Your task to perform on an android device: Clear all items from cart on target.com. Add asus zenbook to the cart on target.com, then select checkout. Image 0: 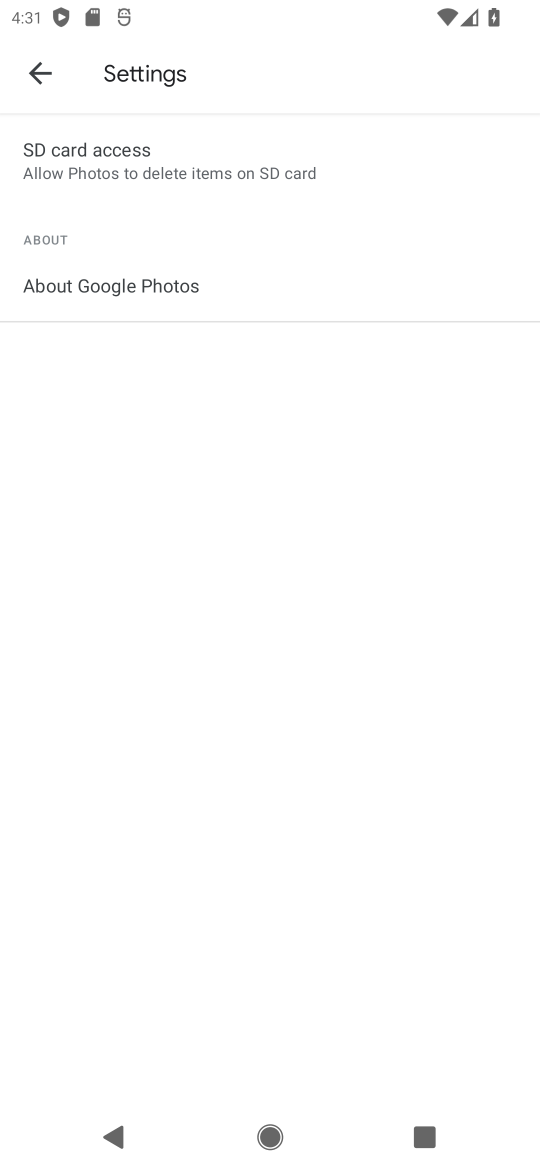
Step 0: press home button
Your task to perform on an android device: Clear all items from cart on target.com. Add asus zenbook to the cart on target.com, then select checkout. Image 1: 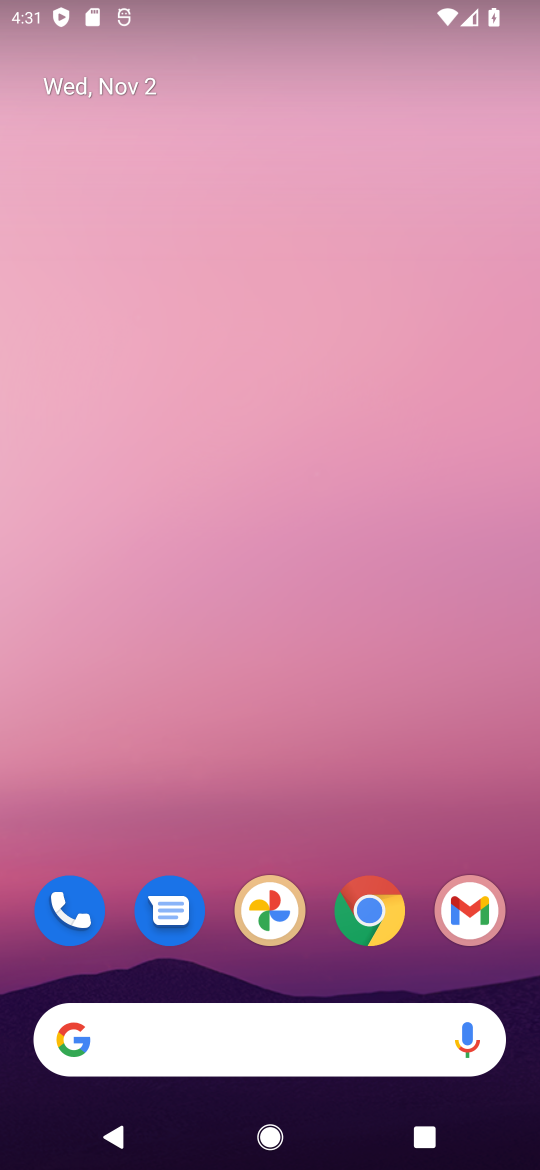
Step 1: click (372, 907)
Your task to perform on an android device: Clear all items from cart on target.com. Add asus zenbook to the cart on target.com, then select checkout. Image 2: 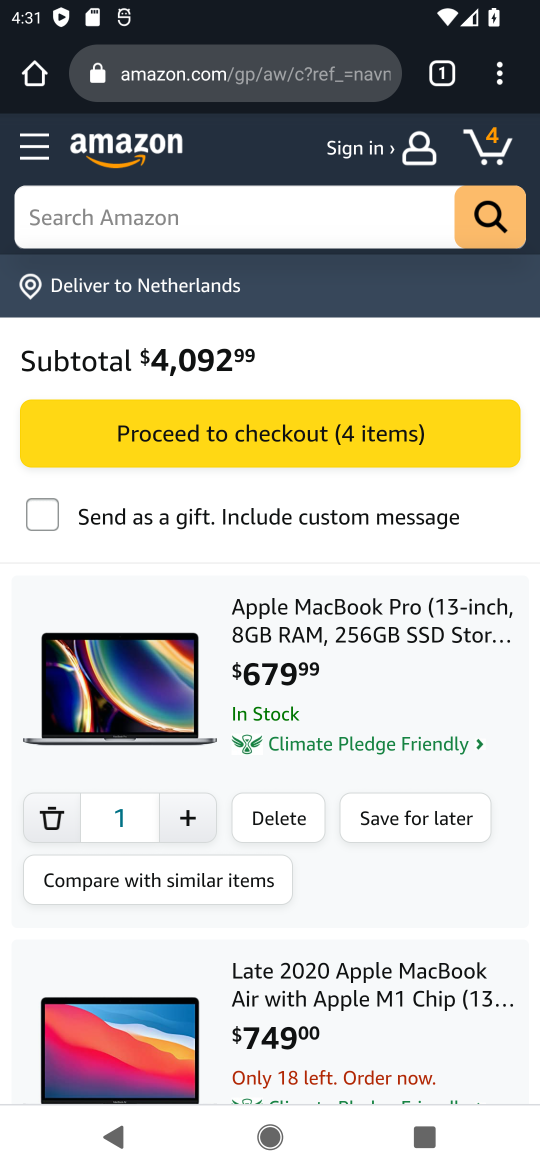
Step 2: click (221, 91)
Your task to perform on an android device: Clear all items from cart on target.com. Add asus zenbook to the cart on target.com, then select checkout. Image 3: 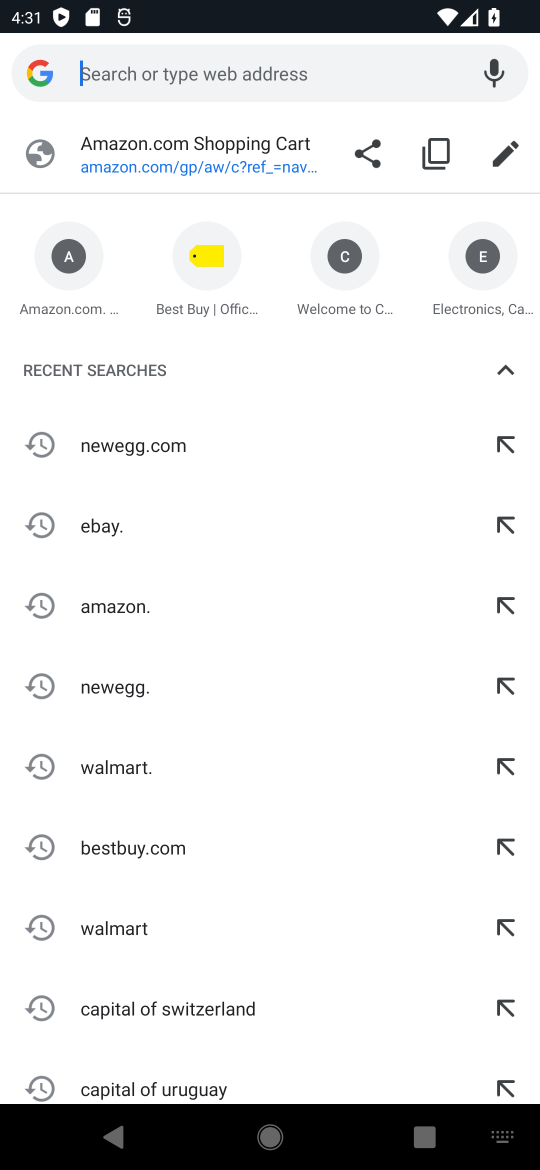
Step 3: type "target.com"
Your task to perform on an android device: Clear all items from cart on target.com. Add asus zenbook to the cart on target.com, then select checkout. Image 4: 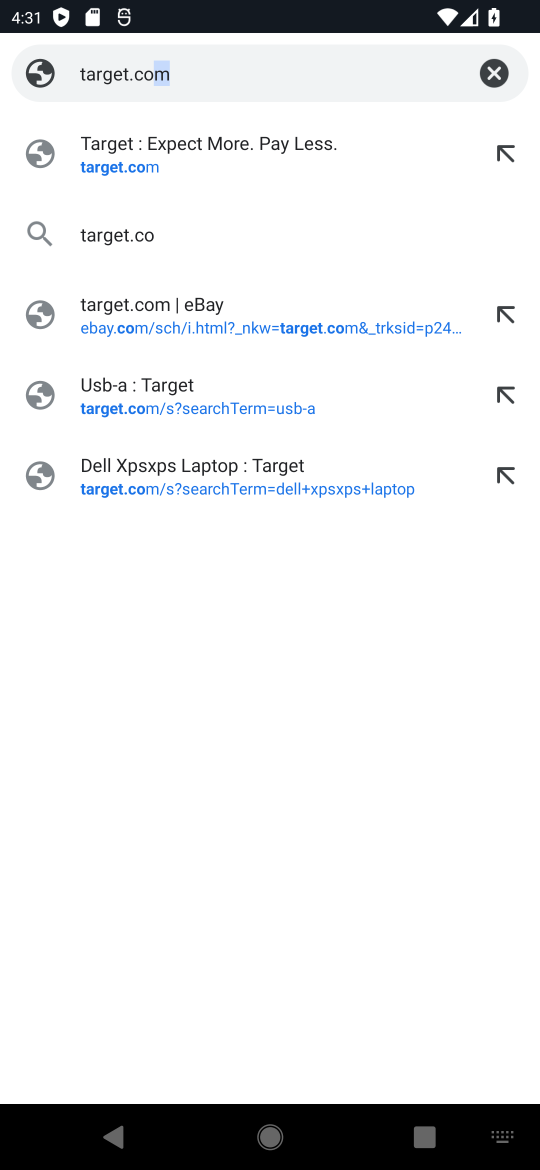
Step 4: type ""
Your task to perform on an android device: Clear all items from cart on target.com. Add asus zenbook to the cart on target.com, then select checkout. Image 5: 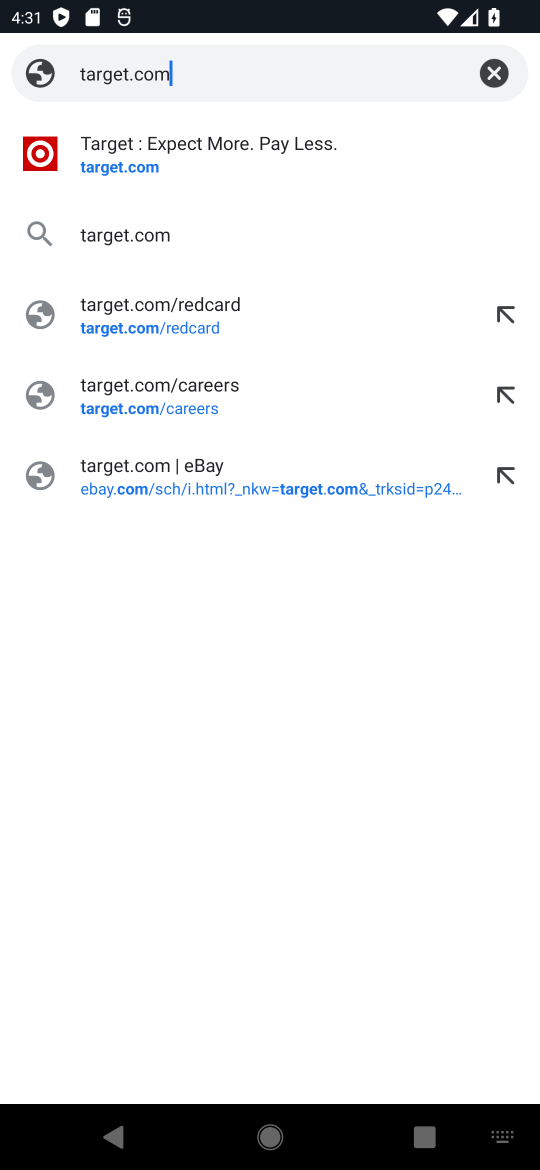
Step 5: click (318, 144)
Your task to perform on an android device: Clear all items from cart on target.com. Add asus zenbook to the cart on target.com, then select checkout. Image 6: 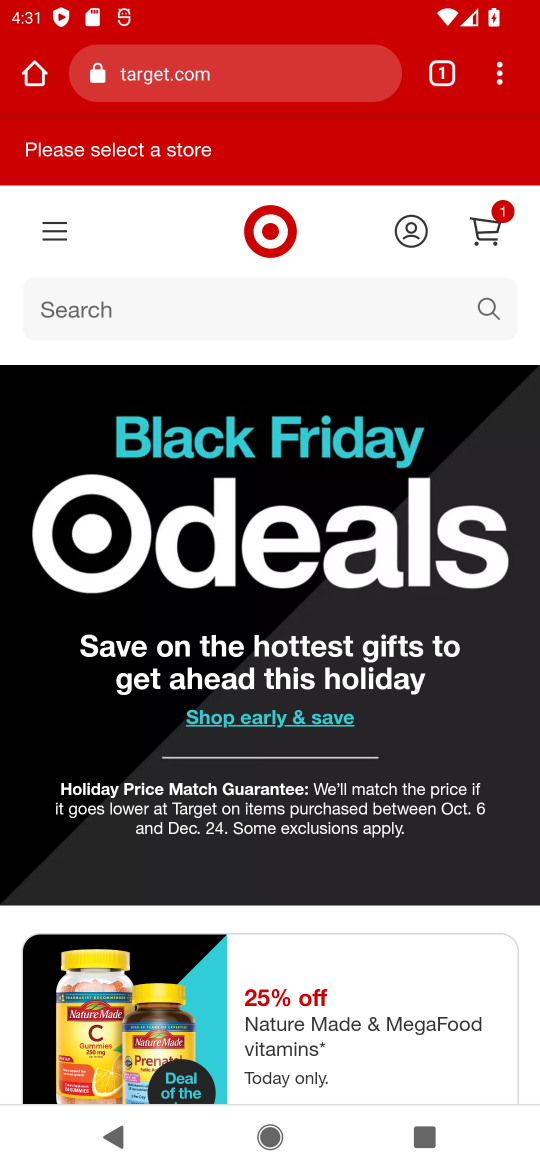
Step 6: click (488, 236)
Your task to perform on an android device: Clear all items from cart on target.com. Add asus zenbook to the cart on target.com, then select checkout. Image 7: 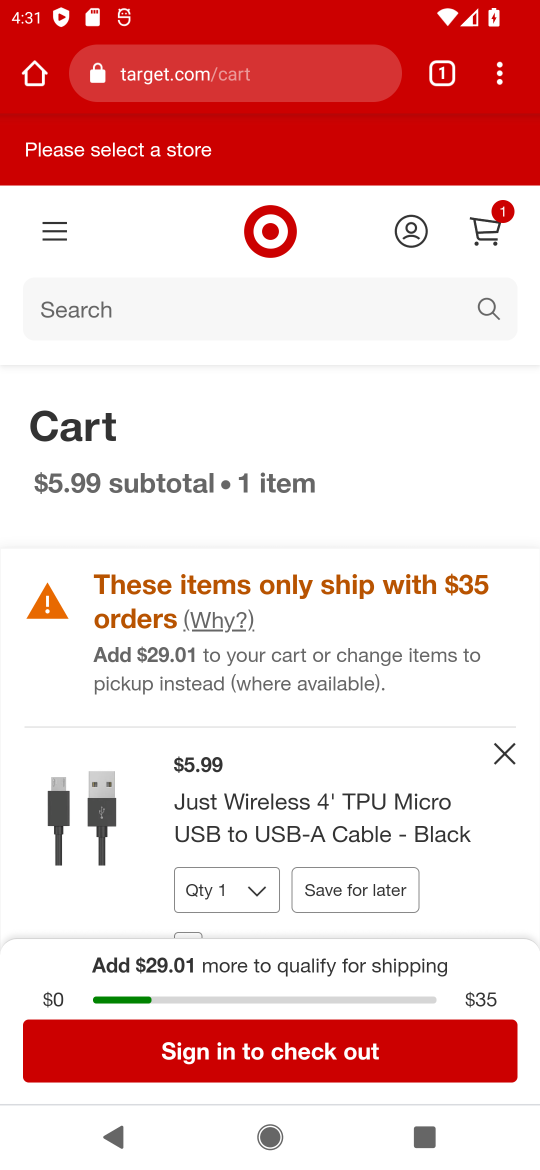
Step 7: click (273, 890)
Your task to perform on an android device: Clear all items from cart on target.com. Add asus zenbook to the cart on target.com, then select checkout. Image 8: 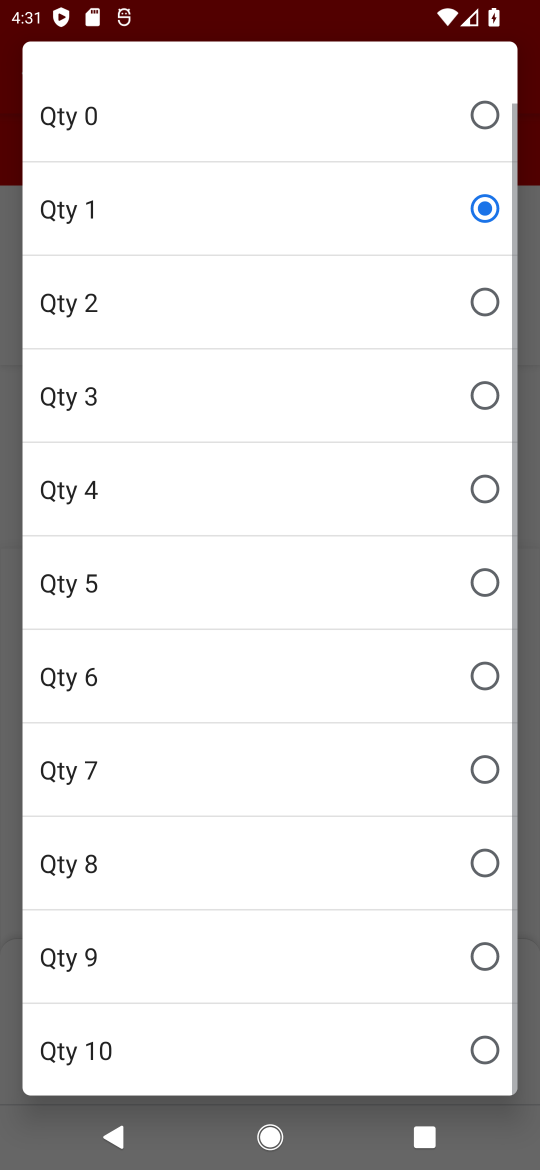
Step 8: click (294, 125)
Your task to perform on an android device: Clear all items from cart on target.com. Add asus zenbook to the cart on target.com, then select checkout. Image 9: 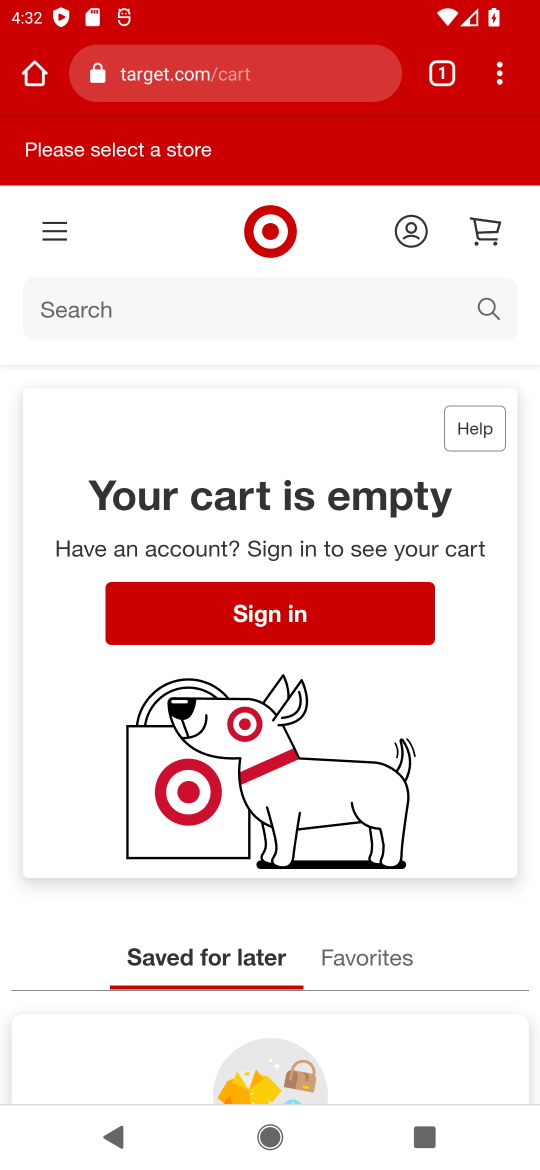
Step 9: click (342, 286)
Your task to perform on an android device: Clear all items from cart on target.com. Add asus zenbook to the cart on target.com, then select checkout. Image 10: 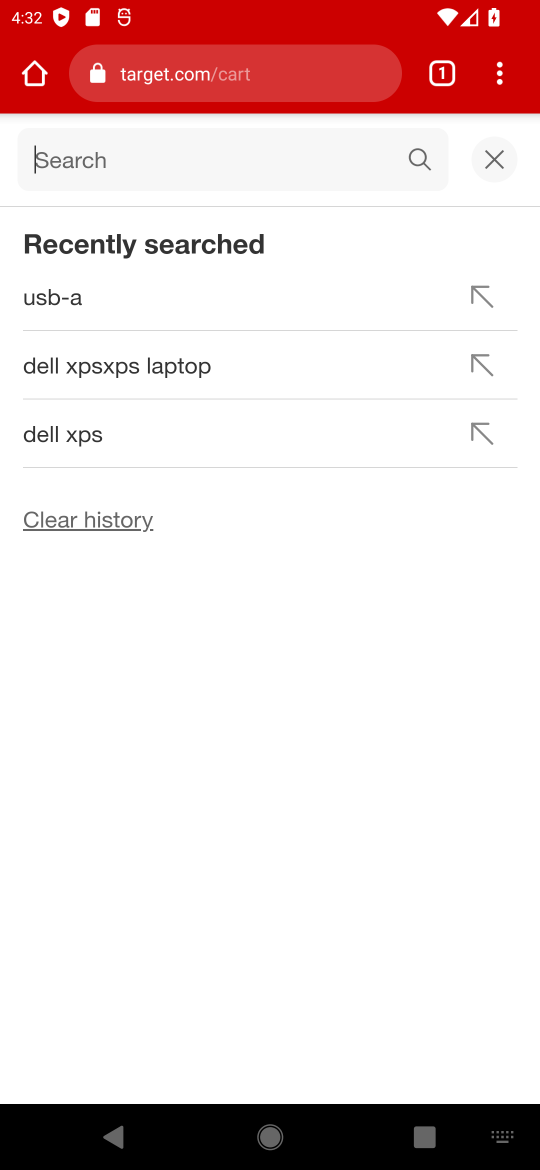
Step 10: type "asus zenbook"
Your task to perform on an android device: Clear all items from cart on target.com. Add asus zenbook to the cart on target.com, then select checkout. Image 11: 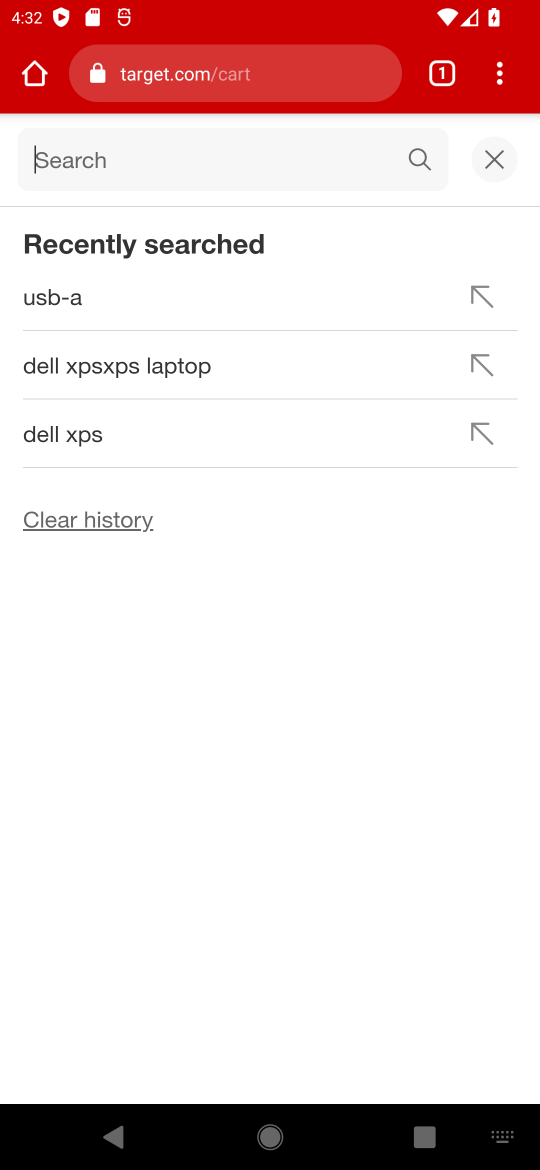
Step 11: type ""
Your task to perform on an android device: Clear all items from cart on target.com. Add asus zenbook to the cart on target.com, then select checkout. Image 12: 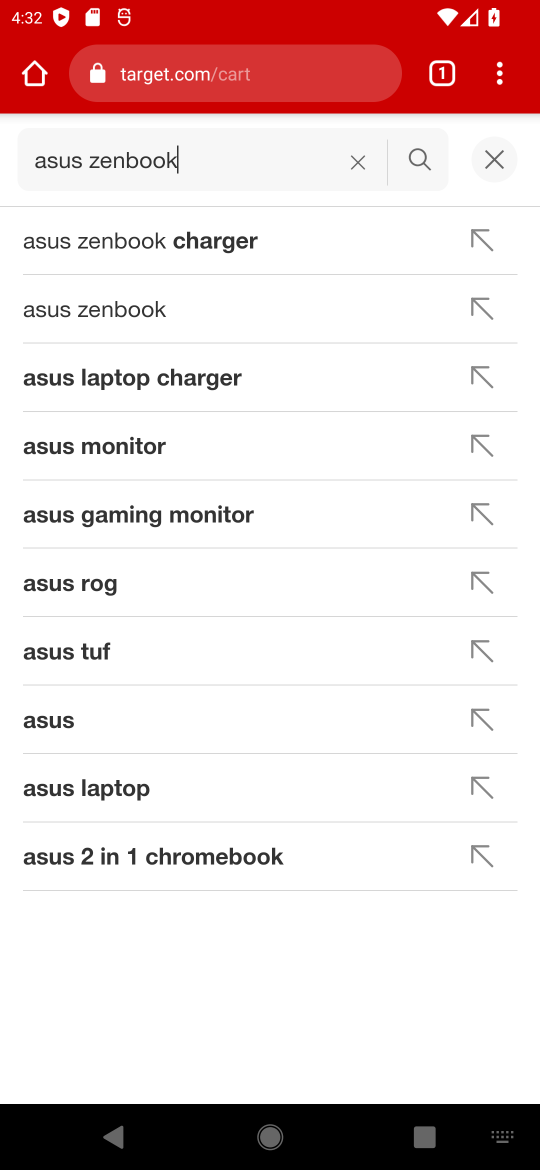
Step 12: press enter
Your task to perform on an android device: Clear all items from cart on target.com. Add asus zenbook to the cart on target.com, then select checkout. Image 13: 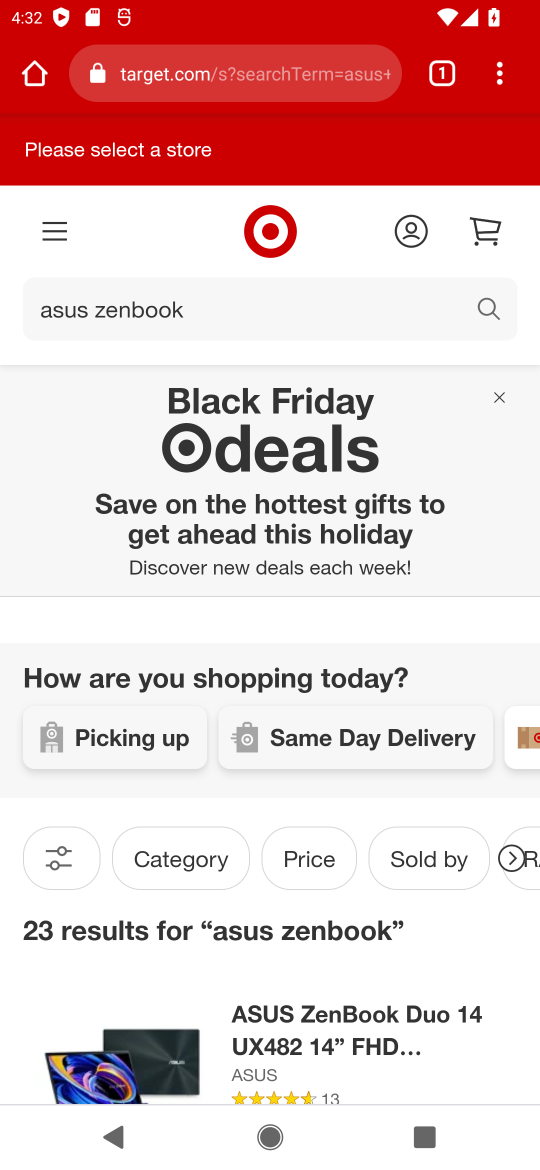
Step 13: drag from (436, 1039) to (447, 612)
Your task to perform on an android device: Clear all items from cart on target.com. Add asus zenbook to the cart on target.com, then select checkout. Image 14: 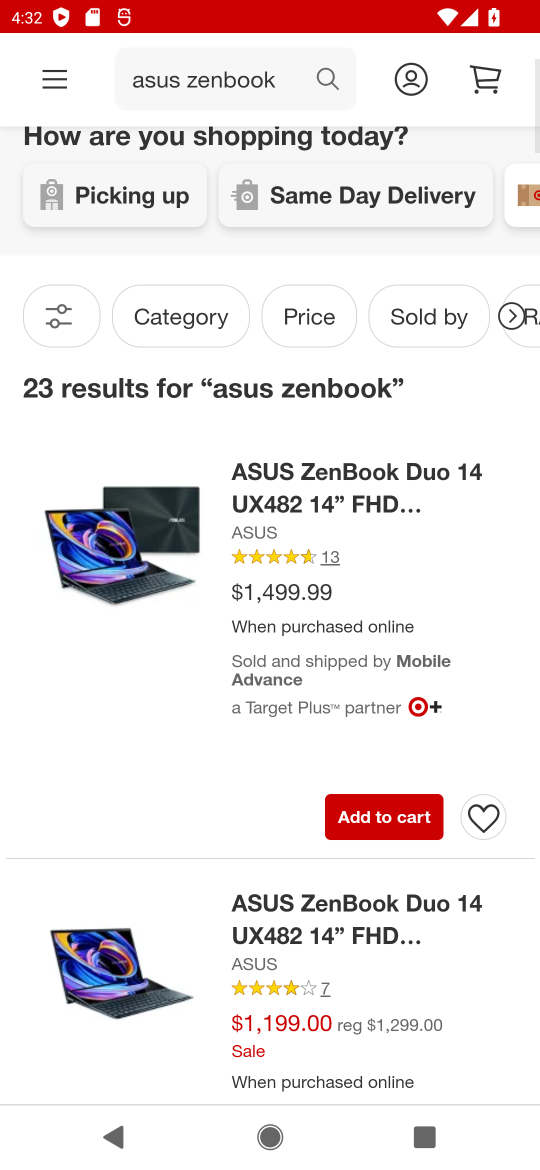
Step 14: click (415, 800)
Your task to perform on an android device: Clear all items from cart on target.com. Add asus zenbook to the cart on target.com, then select checkout. Image 15: 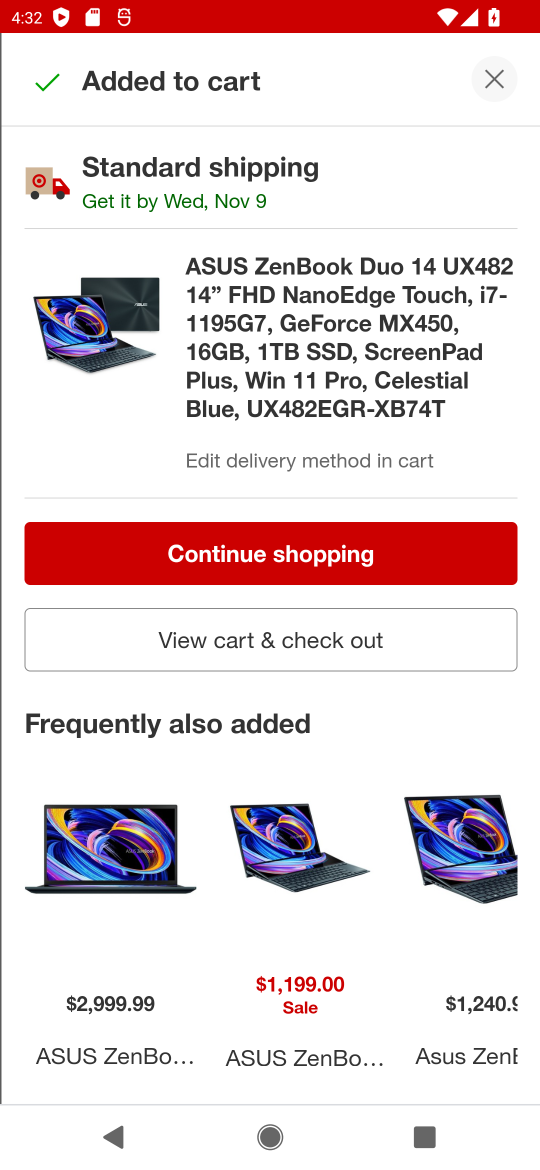
Step 15: click (355, 545)
Your task to perform on an android device: Clear all items from cart on target.com. Add asus zenbook to the cart on target.com, then select checkout. Image 16: 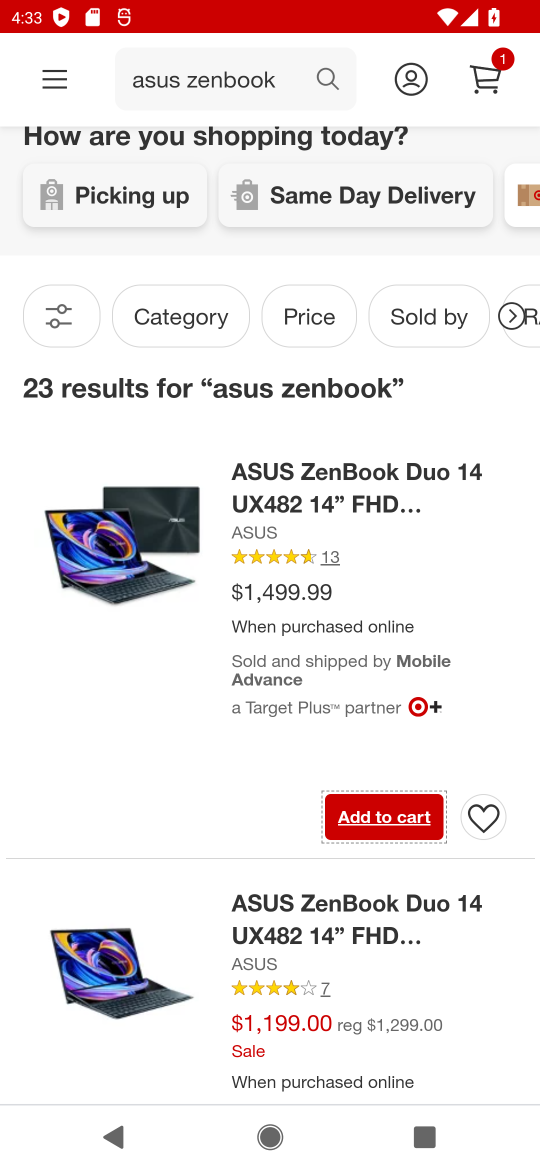
Step 16: click (392, 815)
Your task to perform on an android device: Clear all items from cart on target.com. Add asus zenbook to the cart on target.com, then select checkout. Image 17: 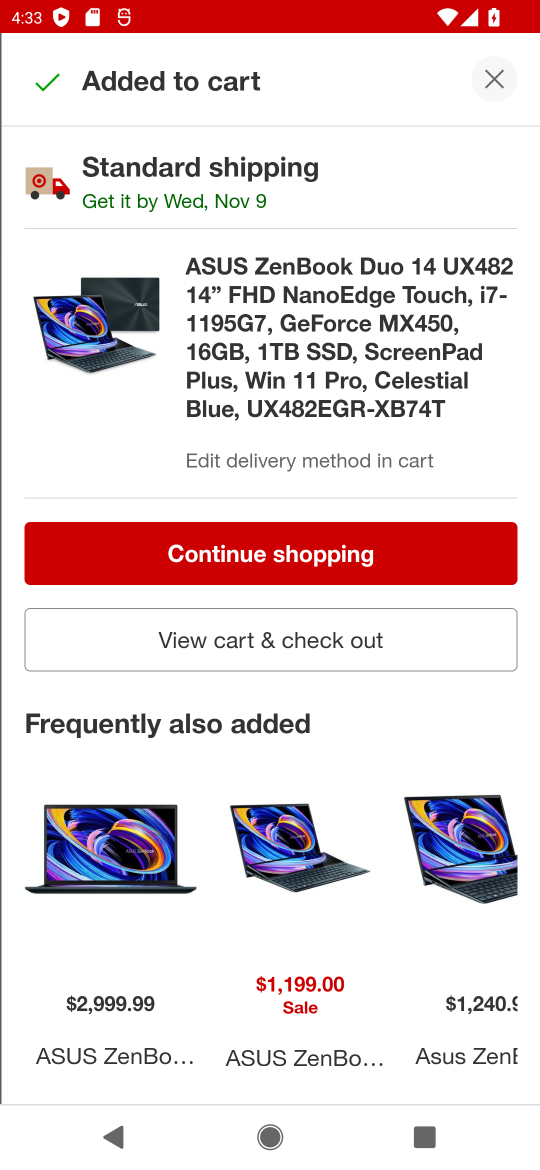
Step 17: click (368, 641)
Your task to perform on an android device: Clear all items from cart on target.com. Add asus zenbook to the cart on target.com, then select checkout. Image 18: 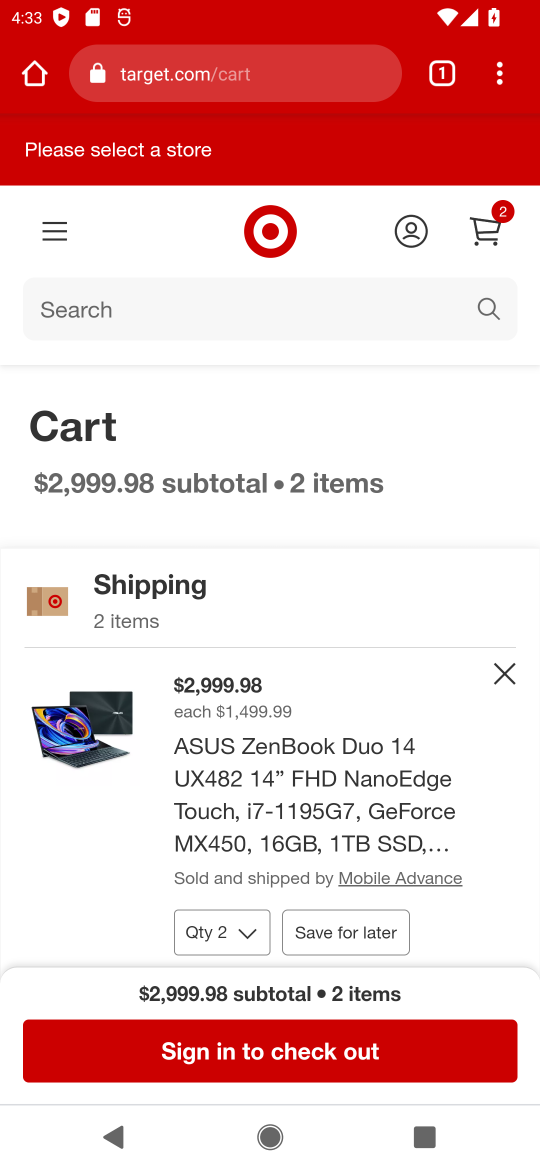
Step 18: drag from (451, 696) to (475, 385)
Your task to perform on an android device: Clear all items from cart on target.com. Add asus zenbook to the cart on target.com, then select checkout. Image 19: 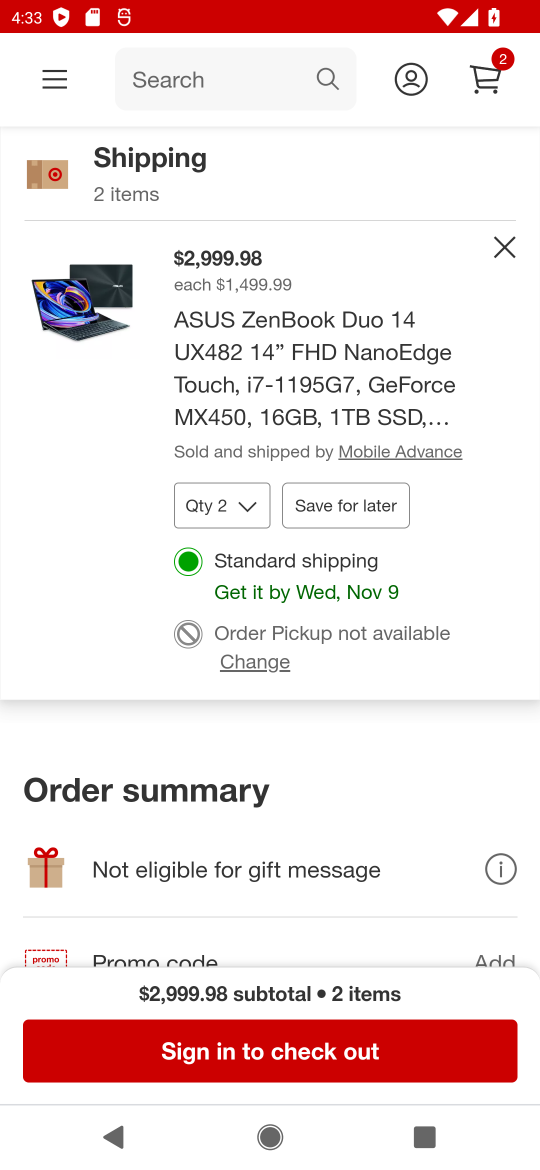
Step 19: drag from (365, 843) to (332, 301)
Your task to perform on an android device: Clear all items from cart on target.com. Add asus zenbook to the cart on target.com, then select checkout. Image 20: 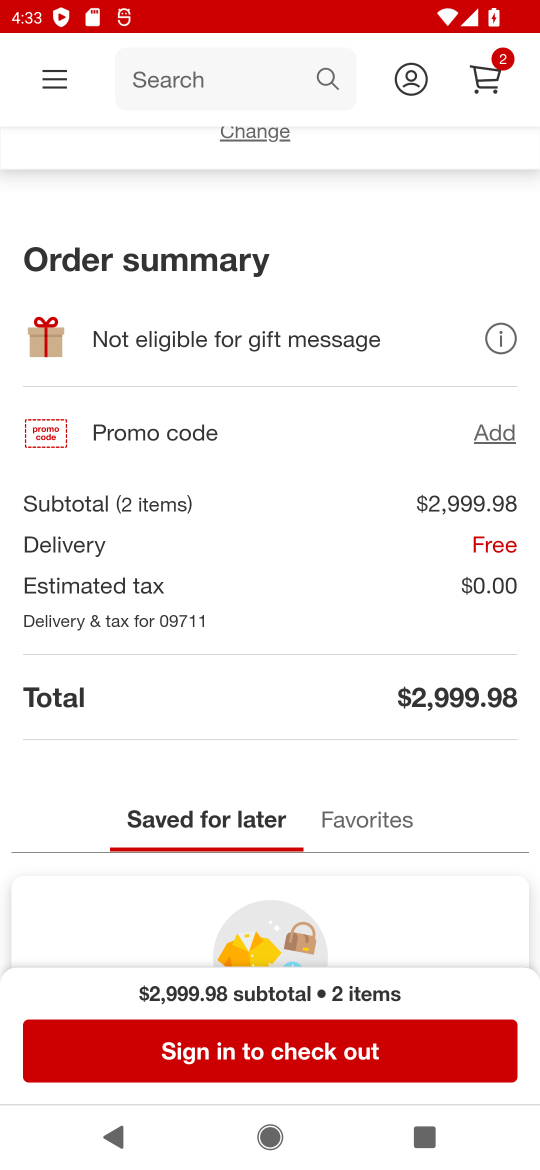
Step 20: drag from (357, 739) to (348, 452)
Your task to perform on an android device: Clear all items from cart on target.com. Add asus zenbook to the cart on target.com, then select checkout. Image 21: 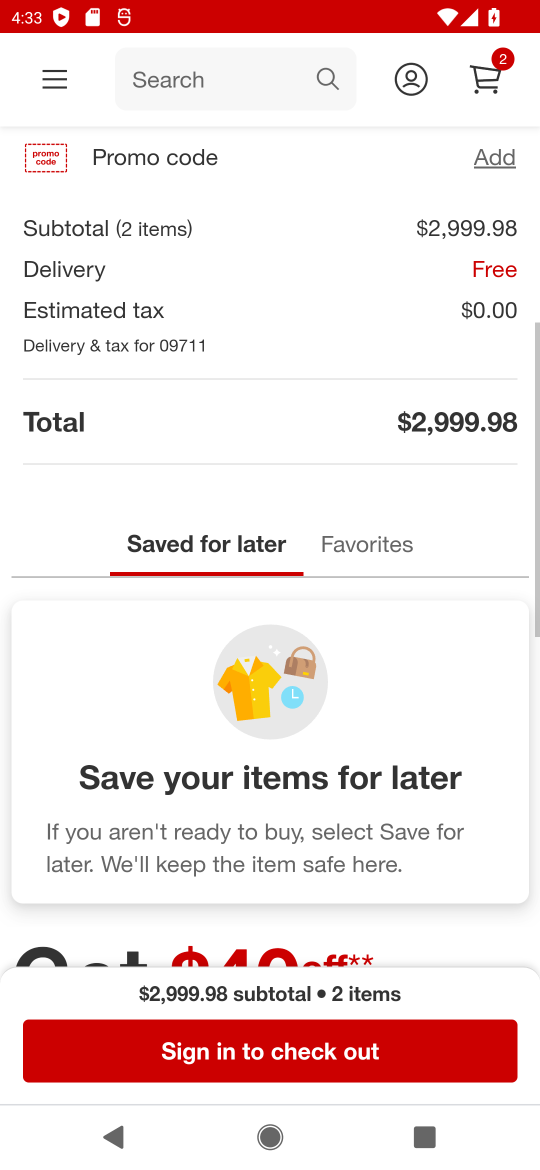
Step 21: click (287, 1076)
Your task to perform on an android device: Clear all items from cart on target.com. Add asus zenbook to the cart on target.com, then select checkout. Image 22: 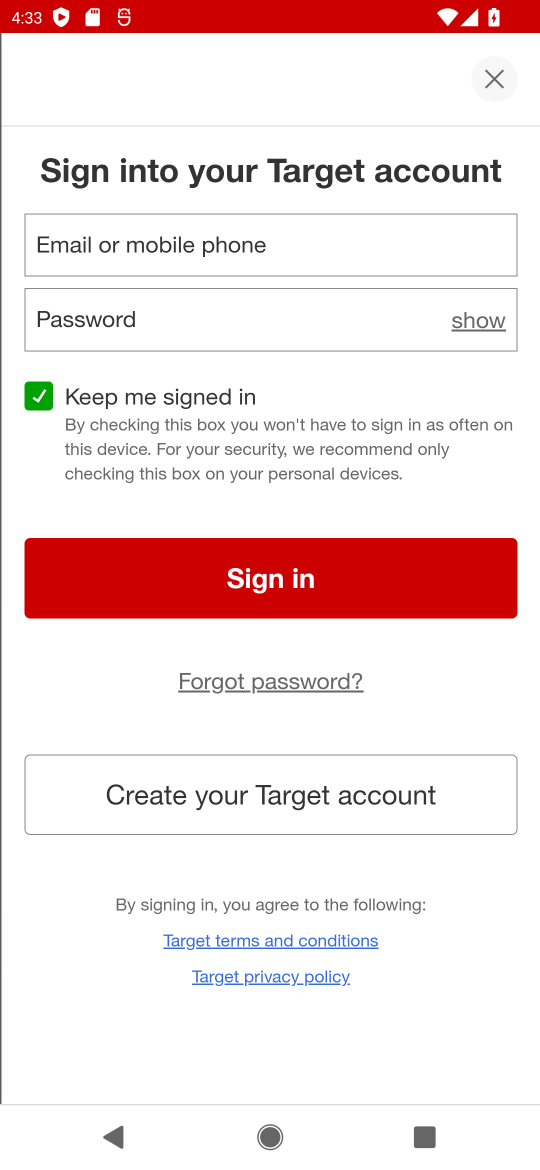
Step 22: click (476, 75)
Your task to perform on an android device: Clear all items from cart on target.com. Add asus zenbook to the cart on target.com, then select checkout. Image 23: 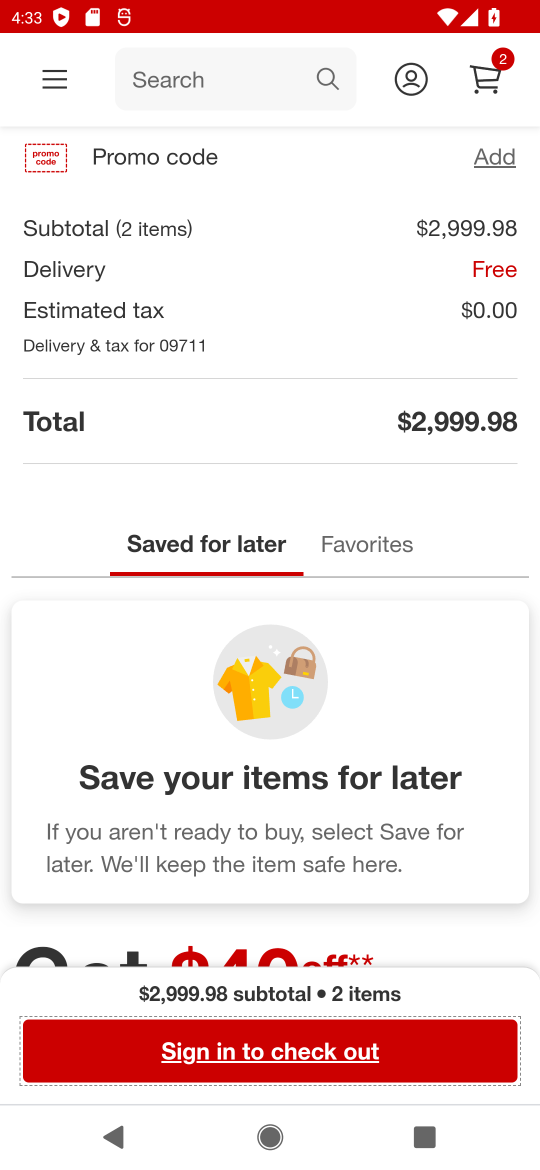
Step 23: task complete